Your task to perform on an android device: move a message to another label in the gmail app Image 0: 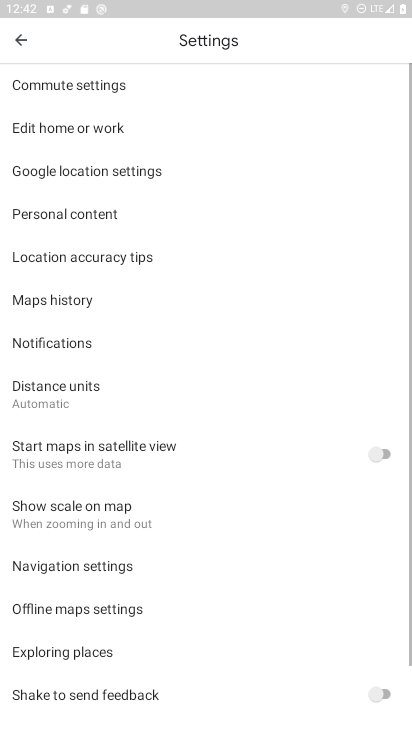
Step 0: press home button
Your task to perform on an android device: move a message to another label in the gmail app Image 1: 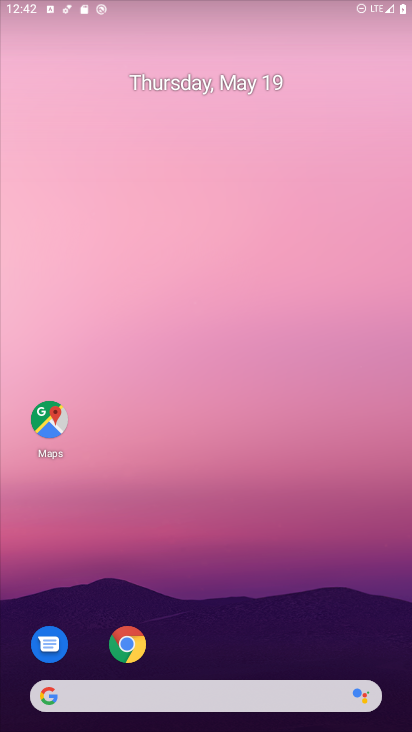
Step 1: drag from (374, 631) to (185, 78)
Your task to perform on an android device: move a message to another label in the gmail app Image 2: 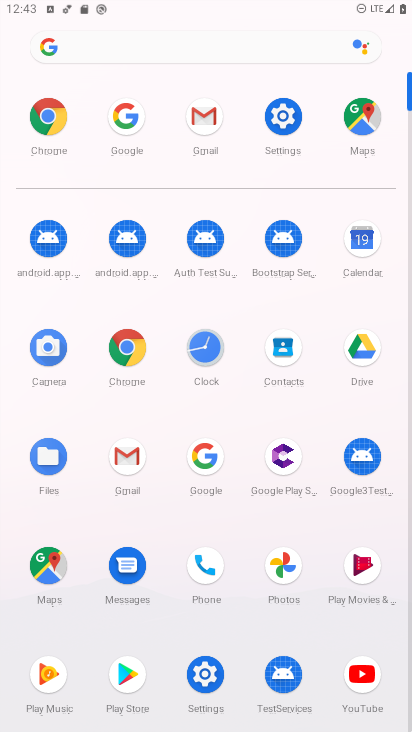
Step 2: click (120, 456)
Your task to perform on an android device: move a message to another label in the gmail app Image 3: 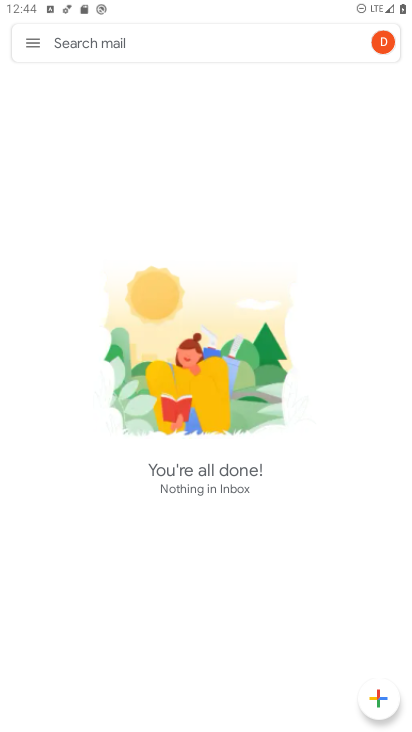
Step 3: task complete